Your task to perform on an android device: install app "ColorNote Notepad Notes" Image 0: 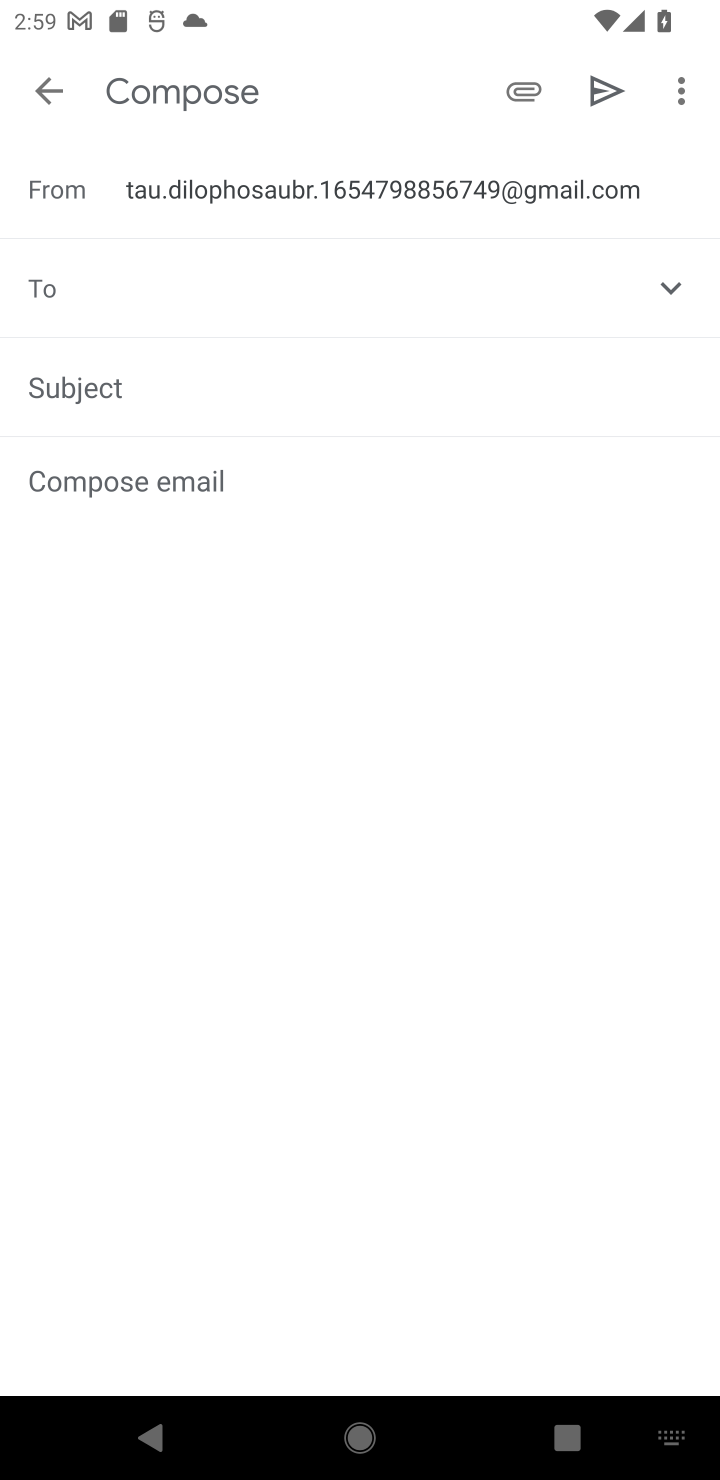
Step 0: press home button
Your task to perform on an android device: install app "ColorNote Notepad Notes" Image 1: 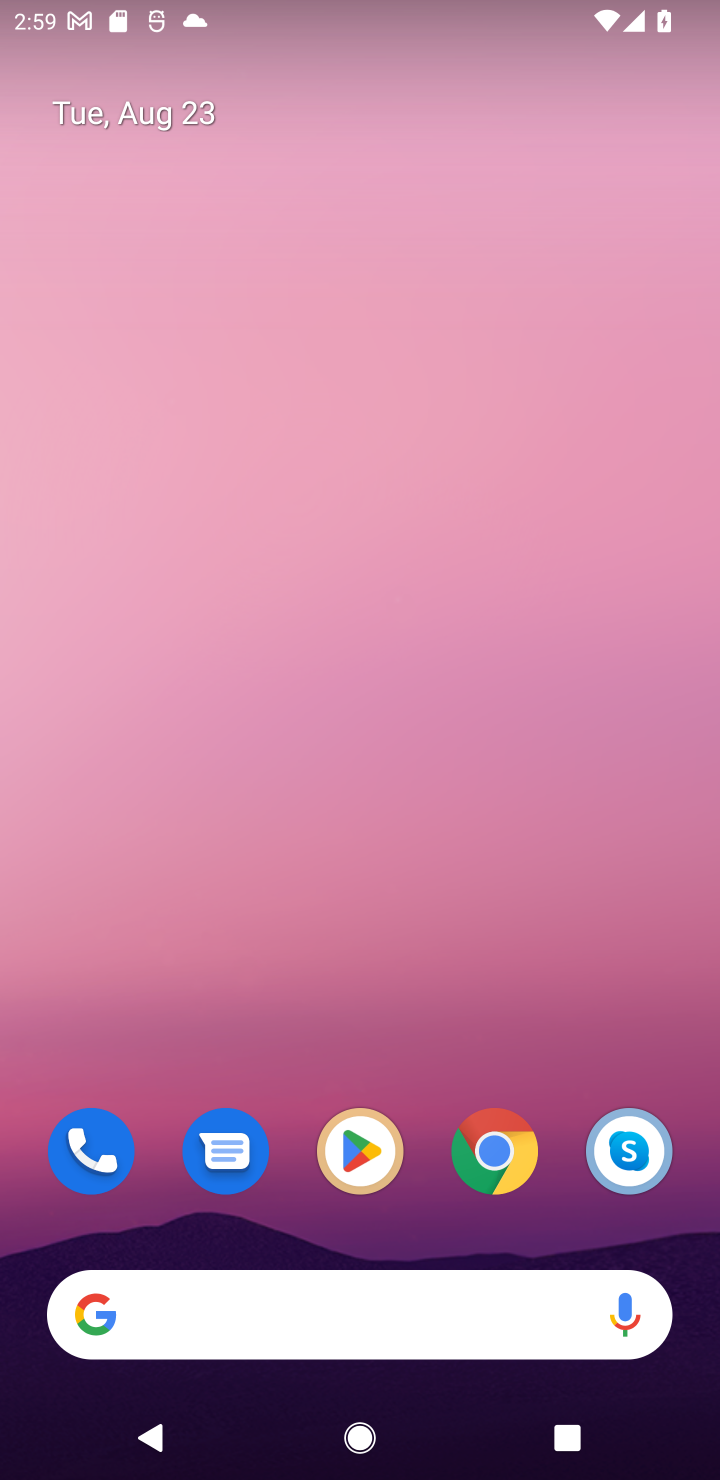
Step 1: press home button
Your task to perform on an android device: install app "ColorNote Notepad Notes" Image 2: 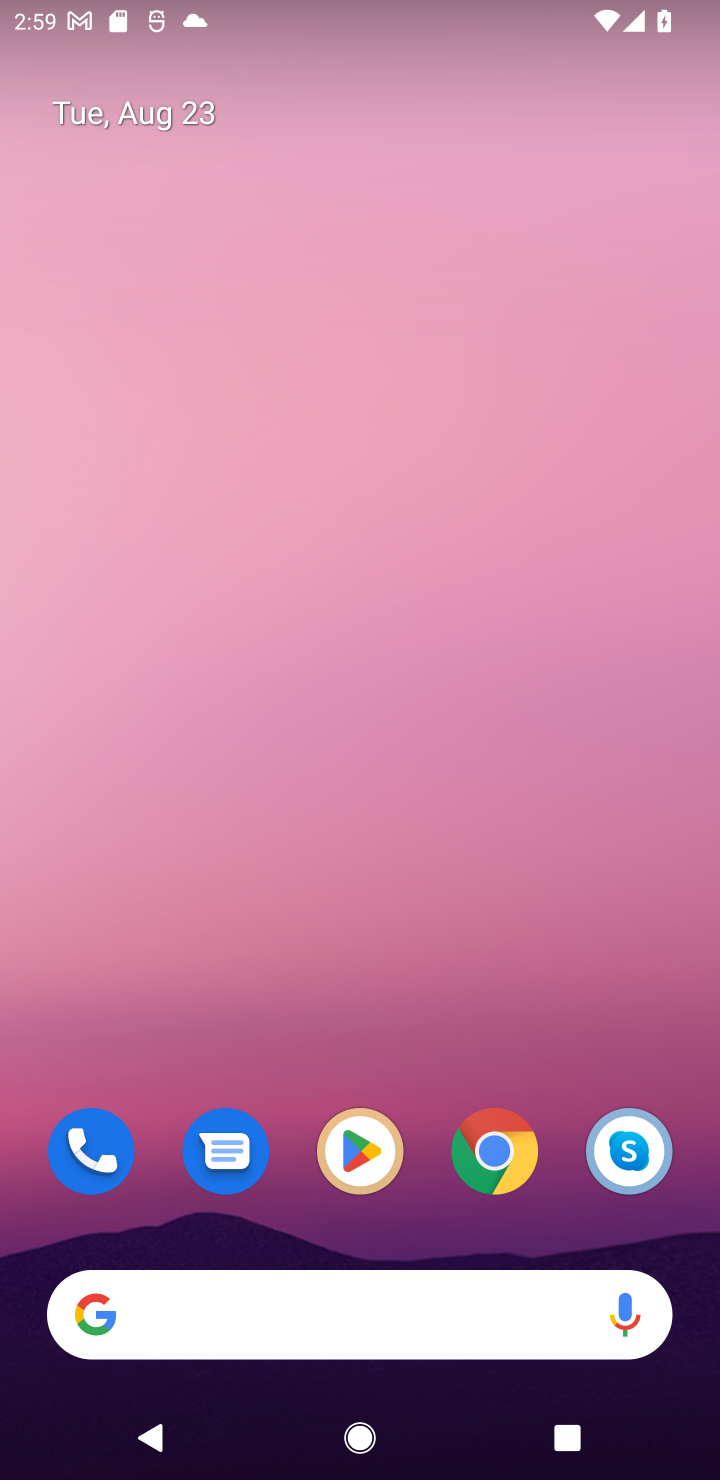
Step 2: click (371, 1145)
Your task to perform on an android device: install app "ColorNote Notepad Notes" Image 3: 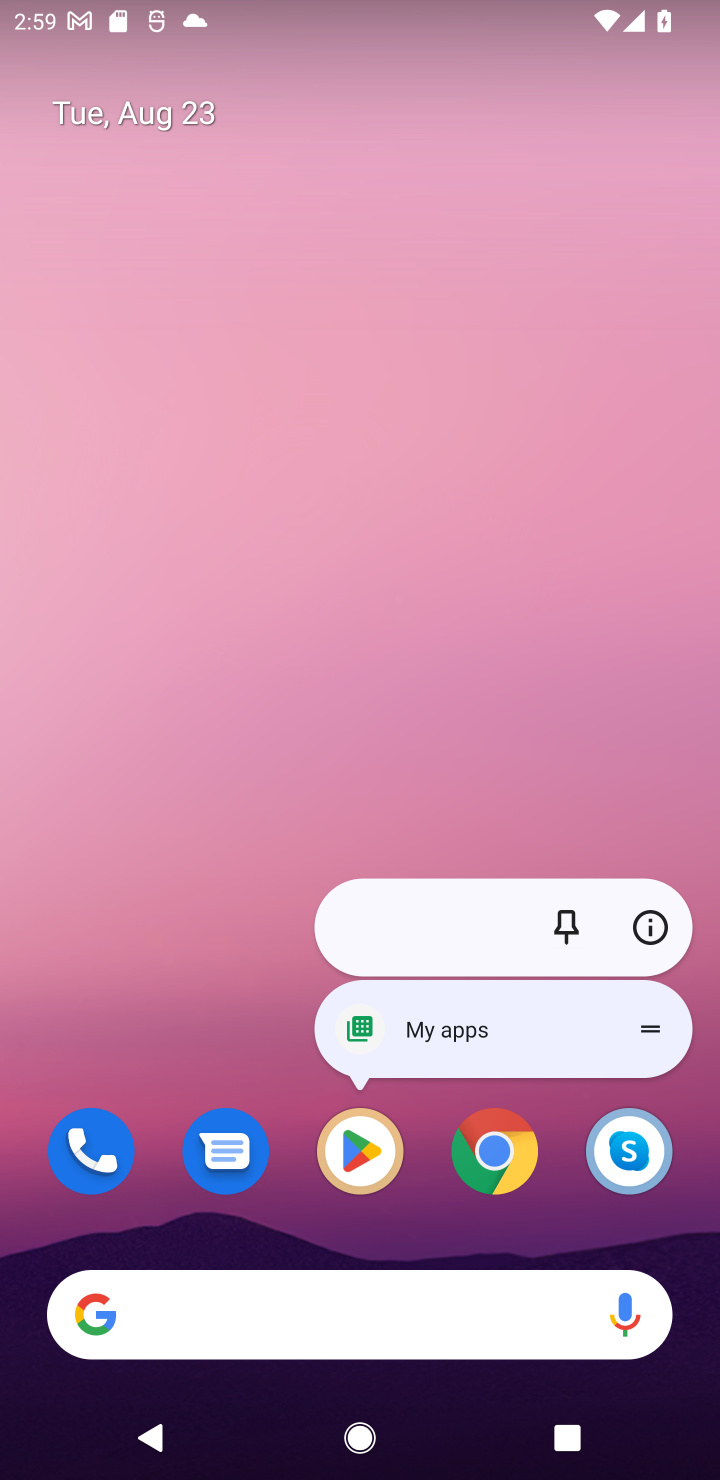
Step 3: click (371, 1145)
Your task to perform on an android device: install app "ColorNote Notepad Notes" Image 4: 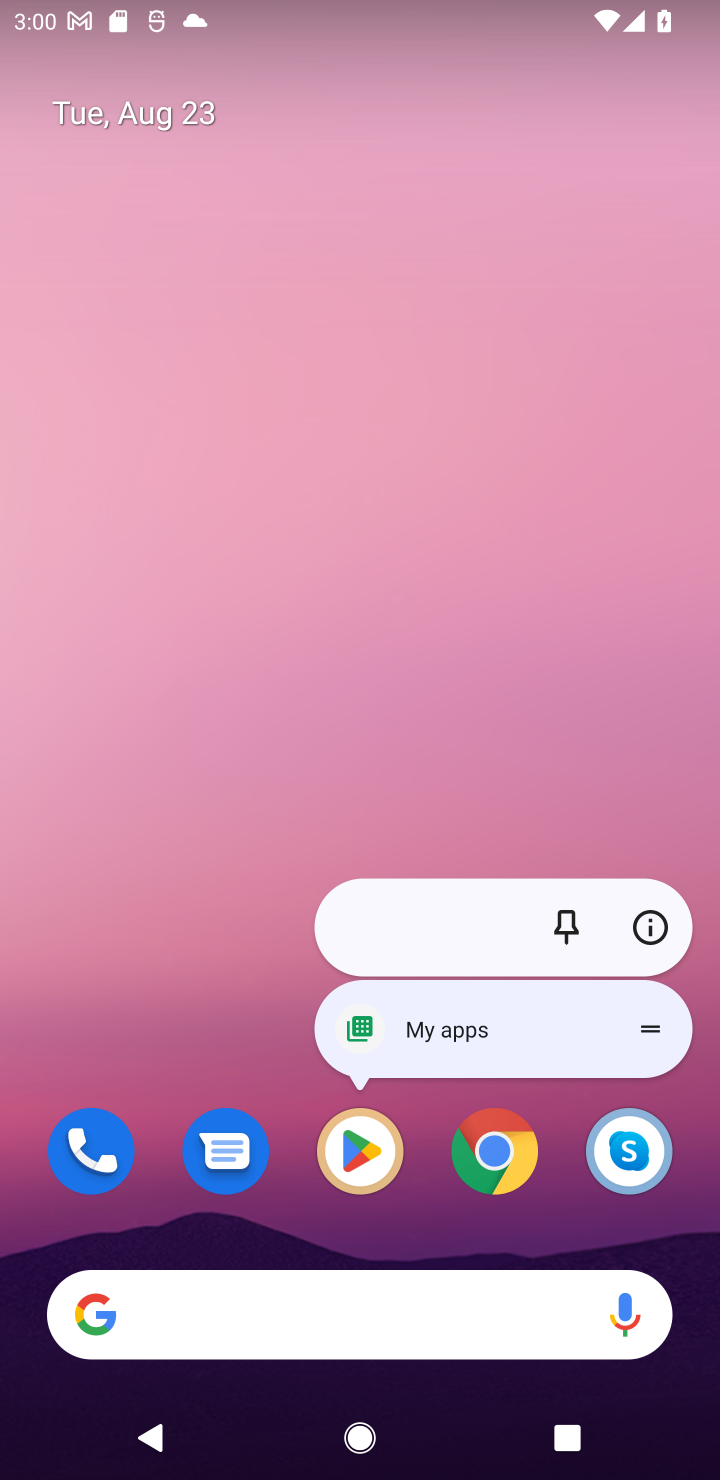
Step 4: click (371, 1145)
Your task to perform on an android device: install app "ColorNote Notepad Notes" Image 5: 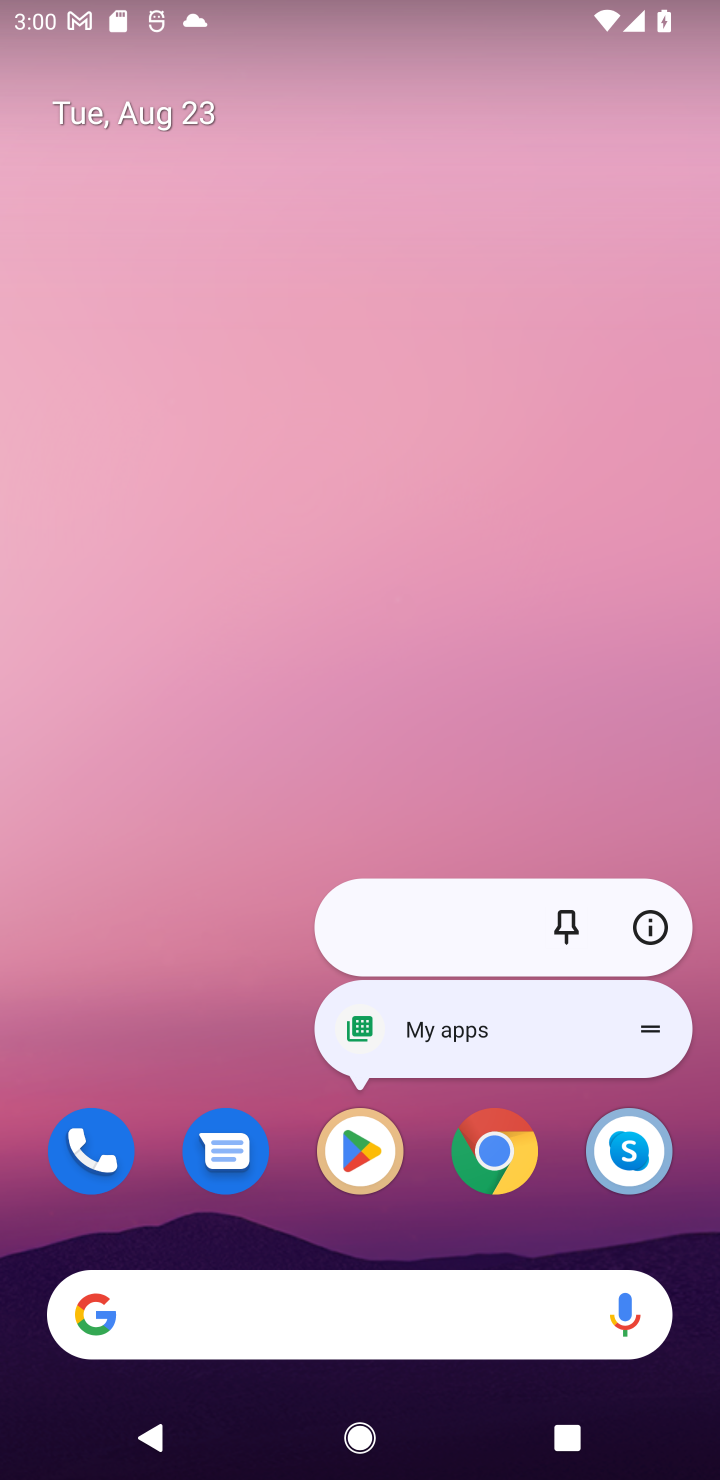
Step 5: click (369, 1152)
Your task to perform on an android device: install app "ColorNote Notepad Notes" Image 6: 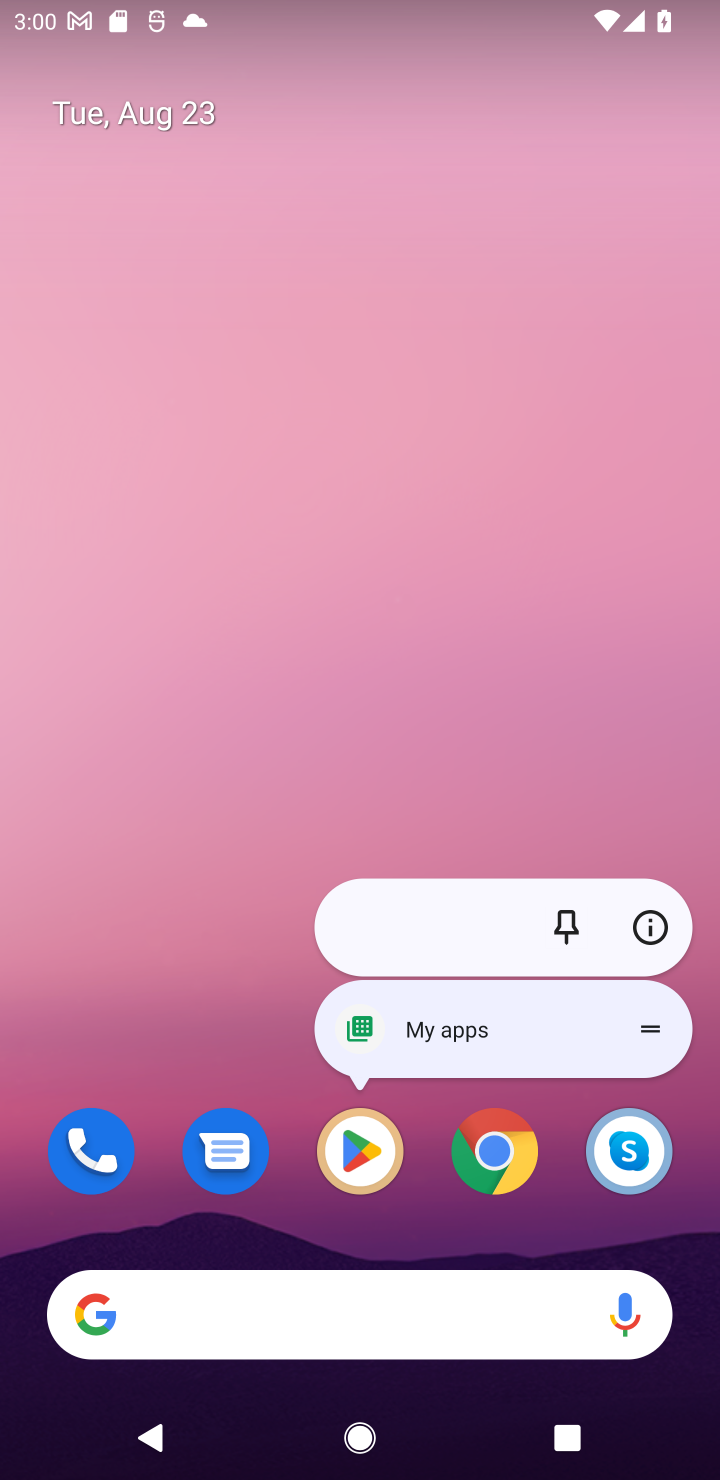
Step 6: click (369, 1152)
Your task to perform on an android device: install app "ColorNote Notepad Notes" Image 7: 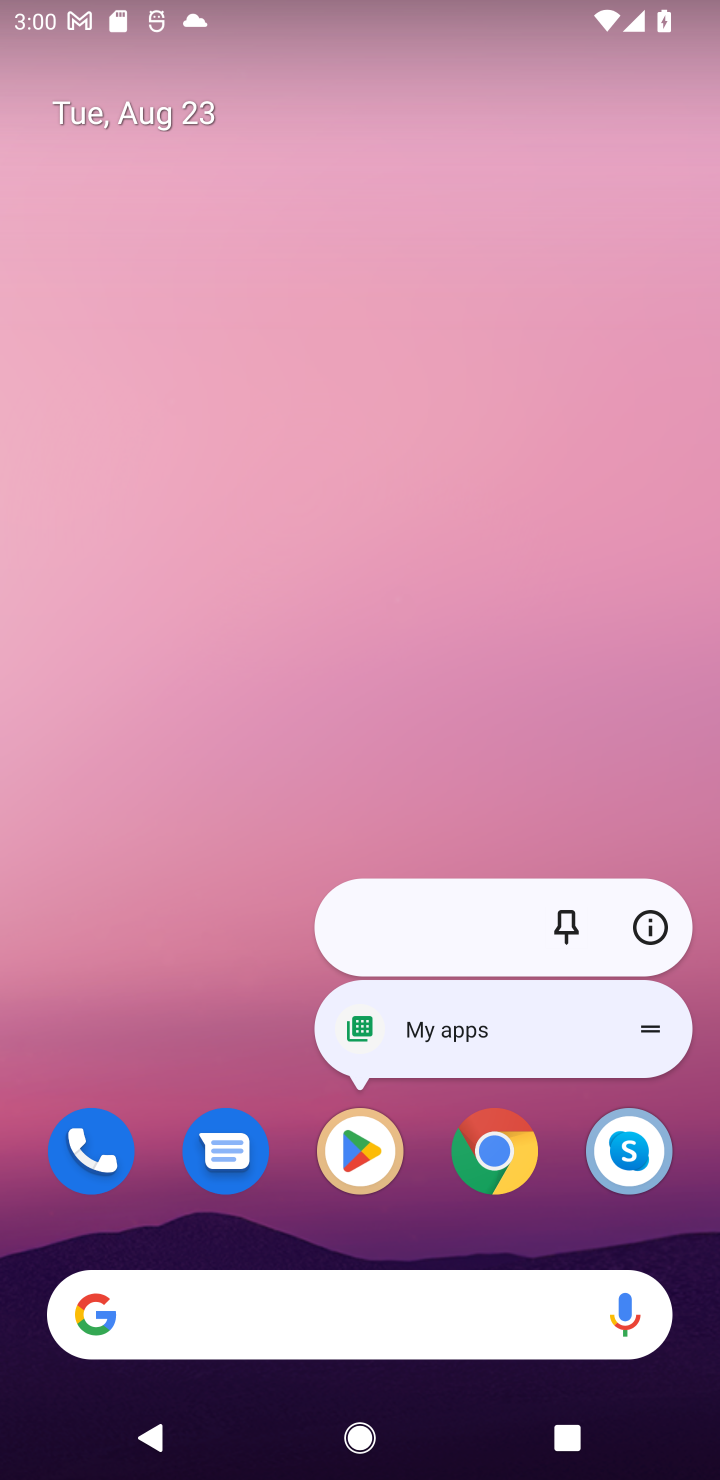
Step 7: click (353, 1150)
Your task to perform on an android device: install app "ColorNote Notepad Notes" Image 8: 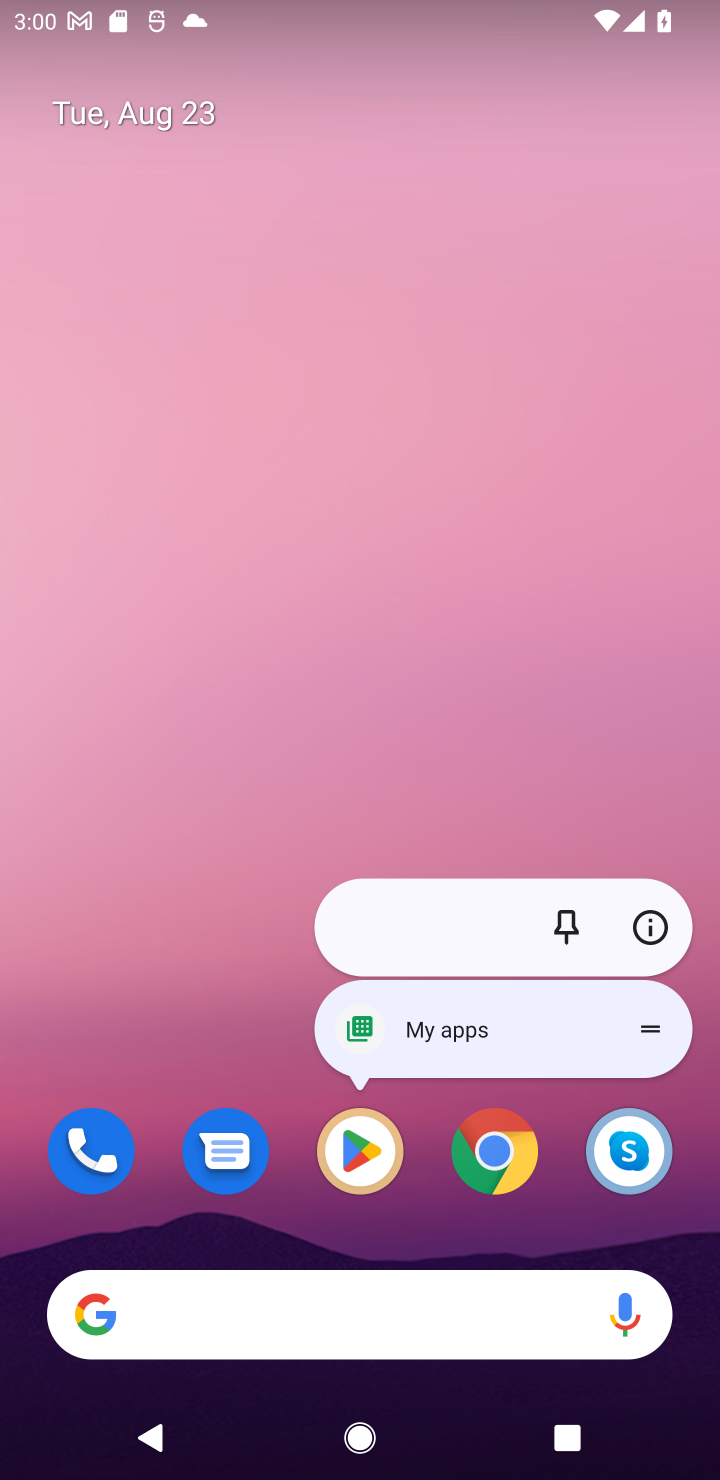
Step 8: click (356, 1150)
Your task to perform on an android device: install app "ColorNote Notepad Notes" Image 9: 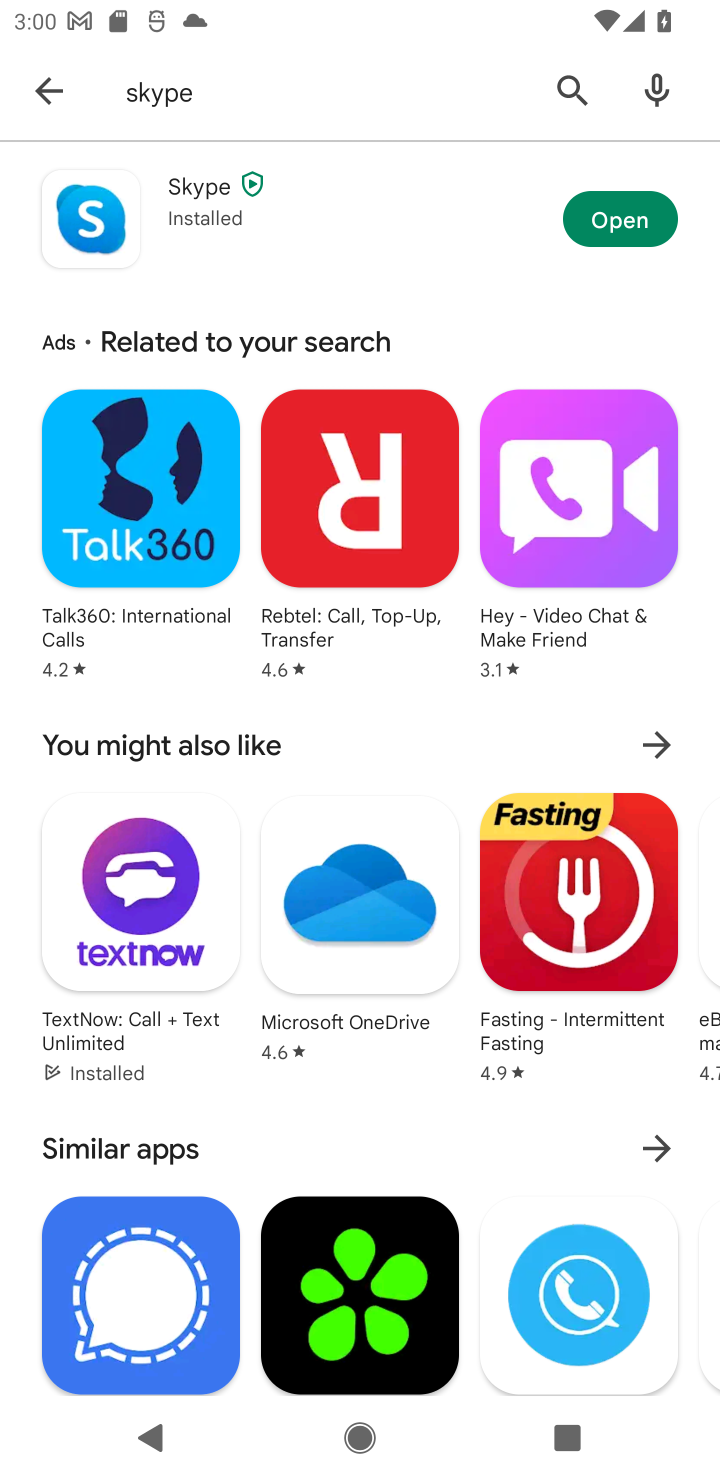
Step 9: click (566, 90)
Your task to perform on an android device: install app "ColorNote Notepad Notes" Image 10: 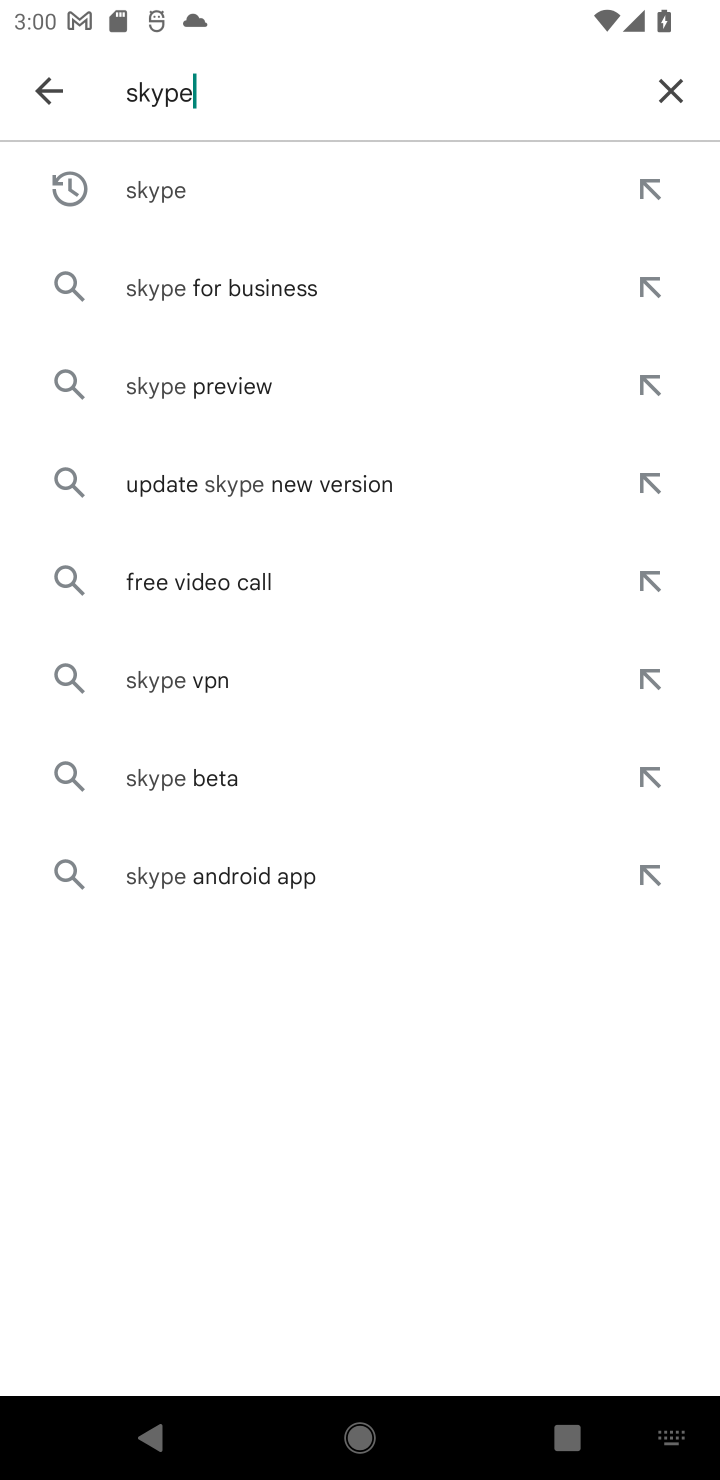
Step 10: click (682, 88)
Your task to perform on an android device: install app "ColorNote Notepad Notes" Image 11: 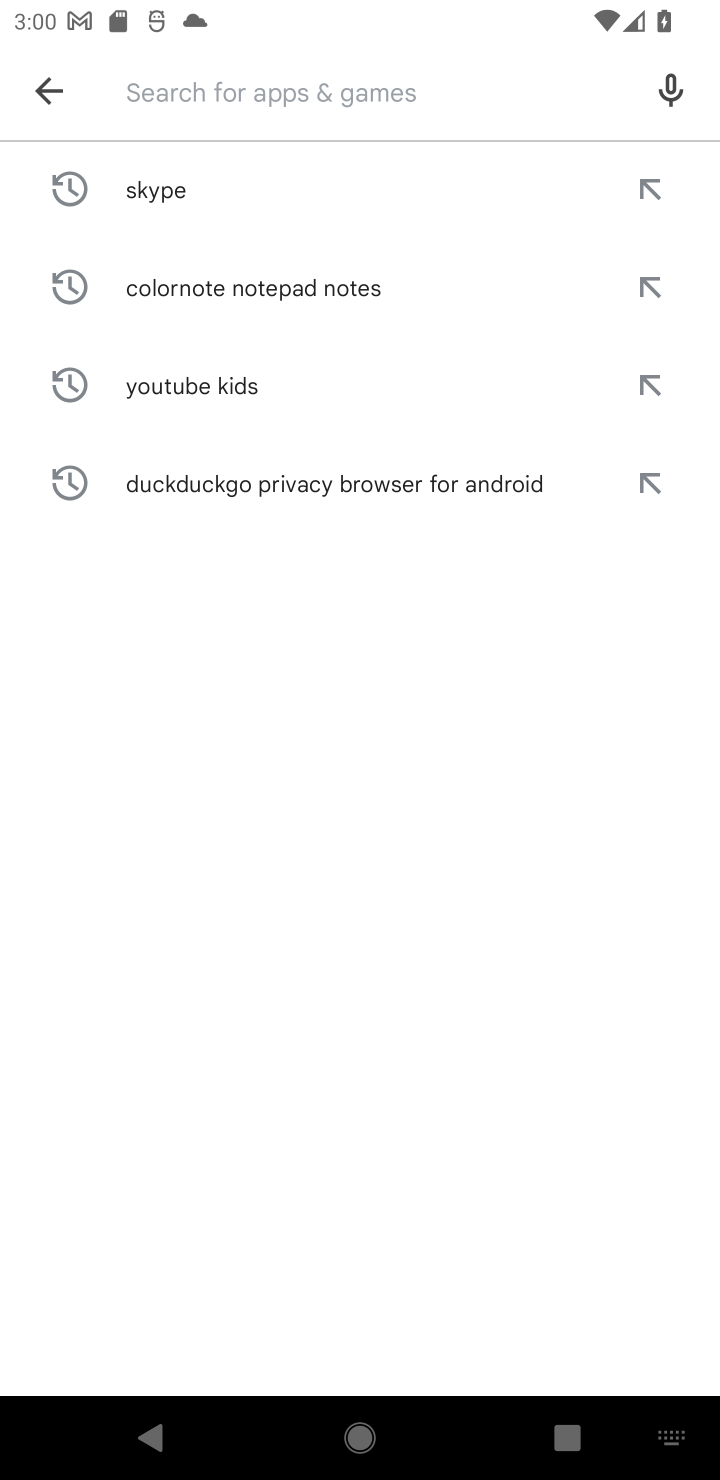
Step 11: type "ColorNote Notepad Notes"
Your task to perform on an android device: install app "ColorNote Notepad Notes" Image 12: 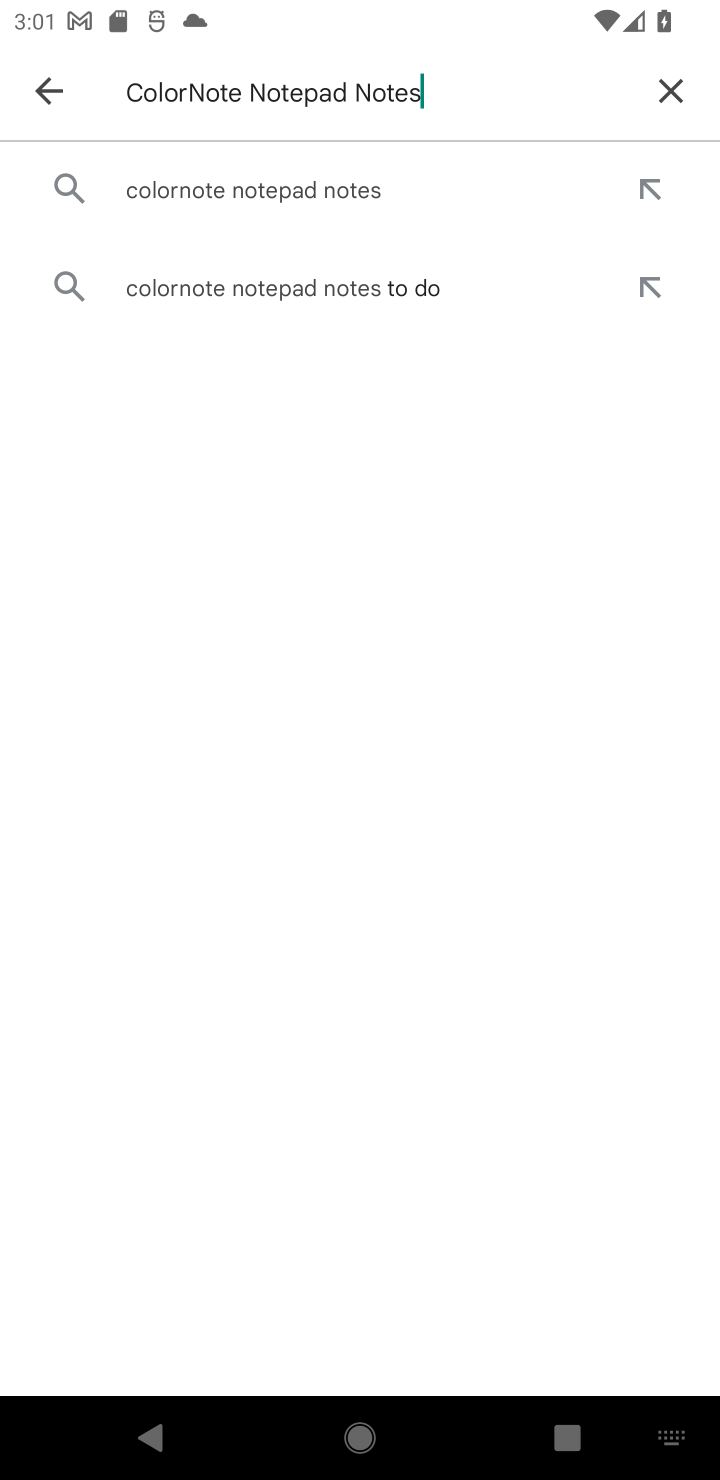
Step 12: click (317, 167)
Your task to perform on an android device: install app "ColorNote Notepad Notes" Image 13: 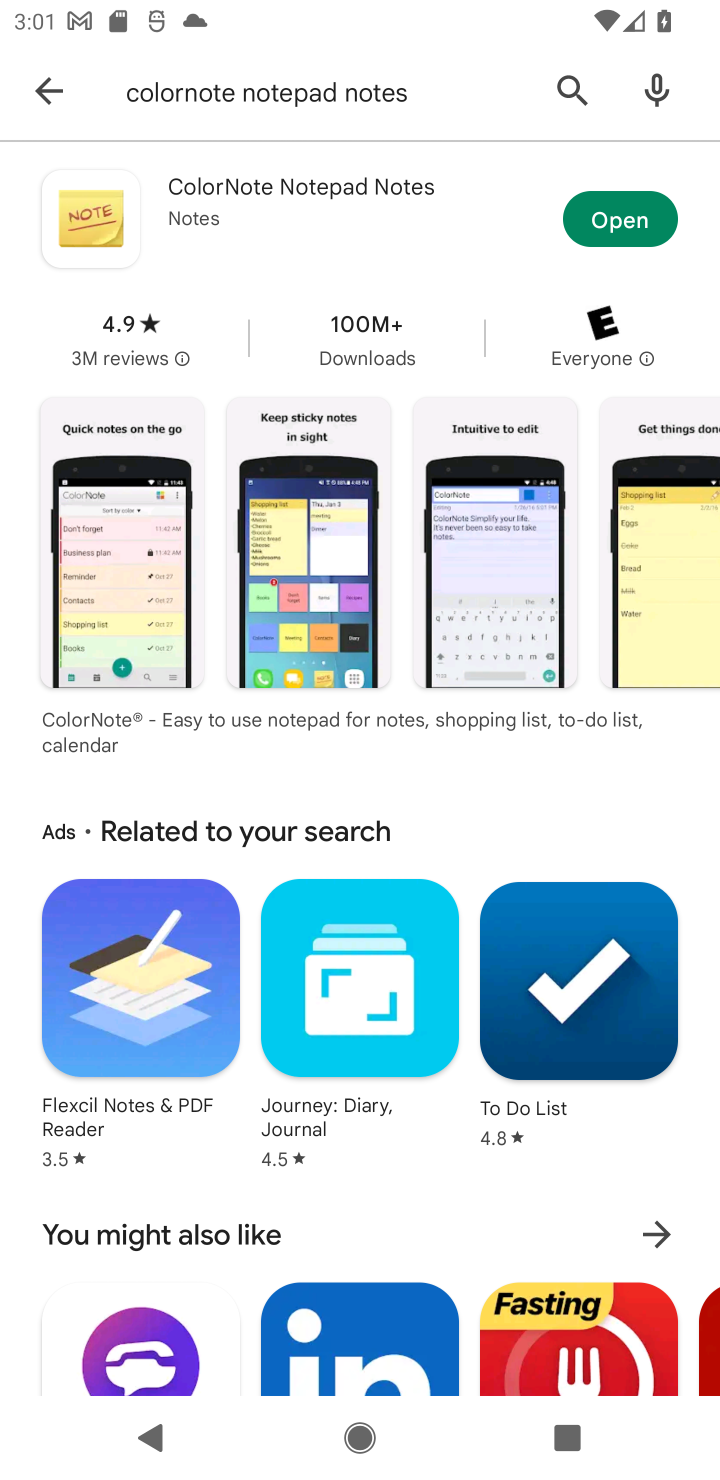
Step 13: task complete